Your task to perform on an android device: delete browsing data in the chrome app Image 0: 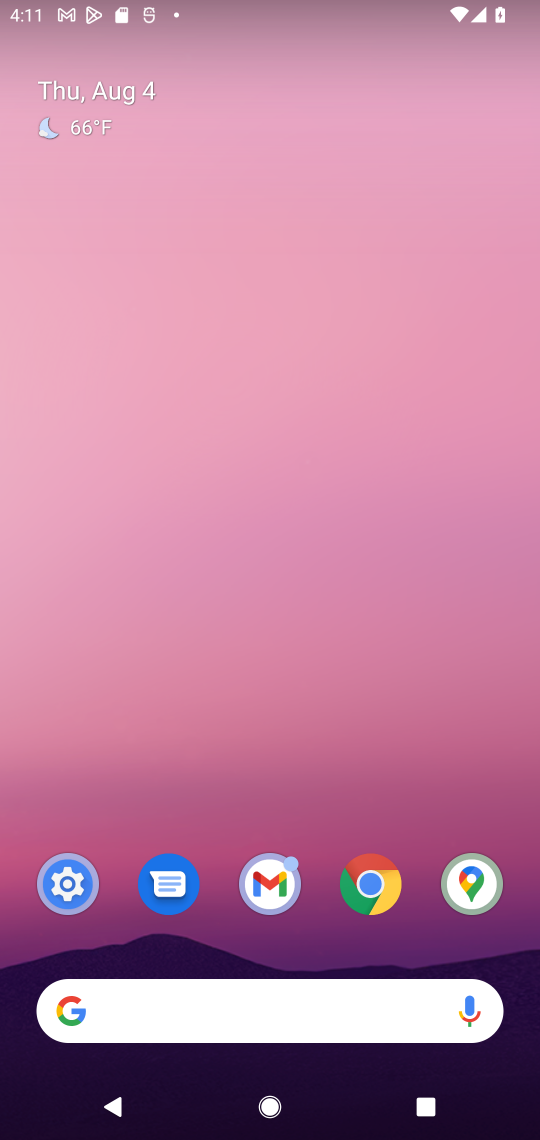
Step 0: click (389, 885)
Your task to perform on an android device: delete browsing data in the chrome app Image 1: 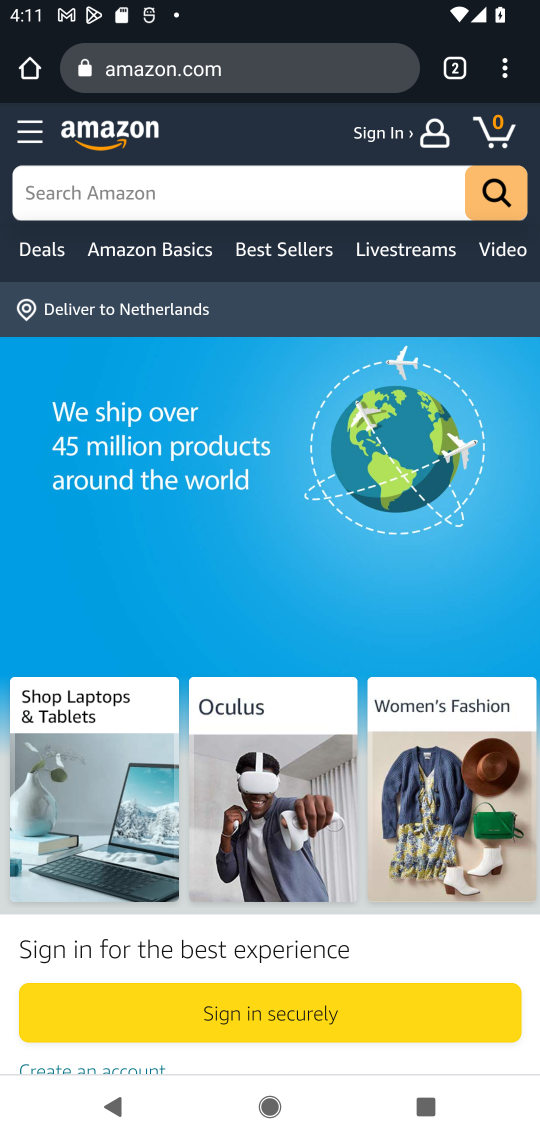
Step 1: click (513, 64)
Your task to perform on an android device: delete browsing data in the chrome app Image 2: 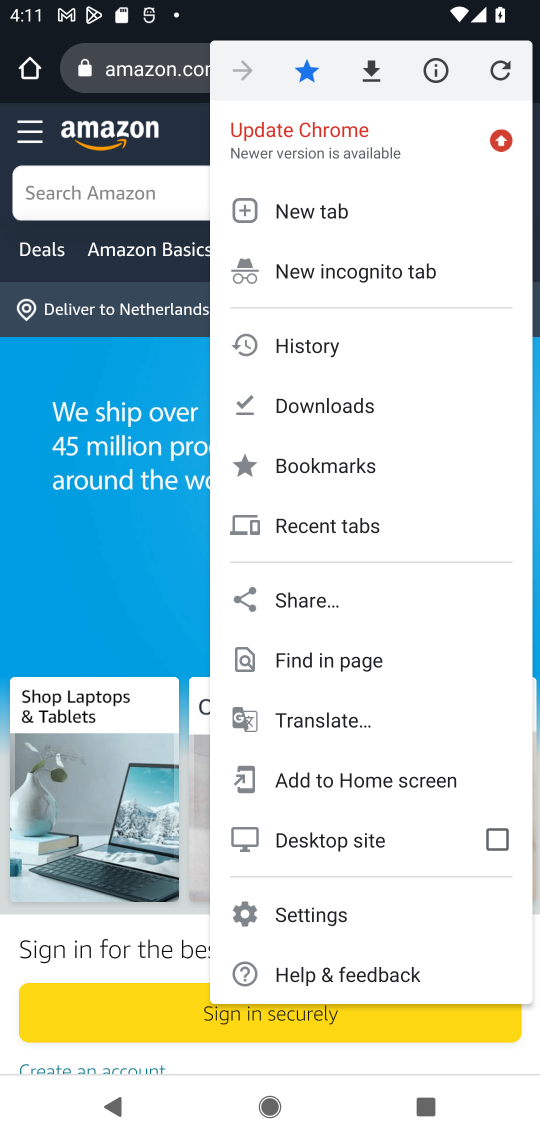
Step 2: click (313, 359)
Your task to perform on an android device: delete browsing data in the chrome app Image 3: 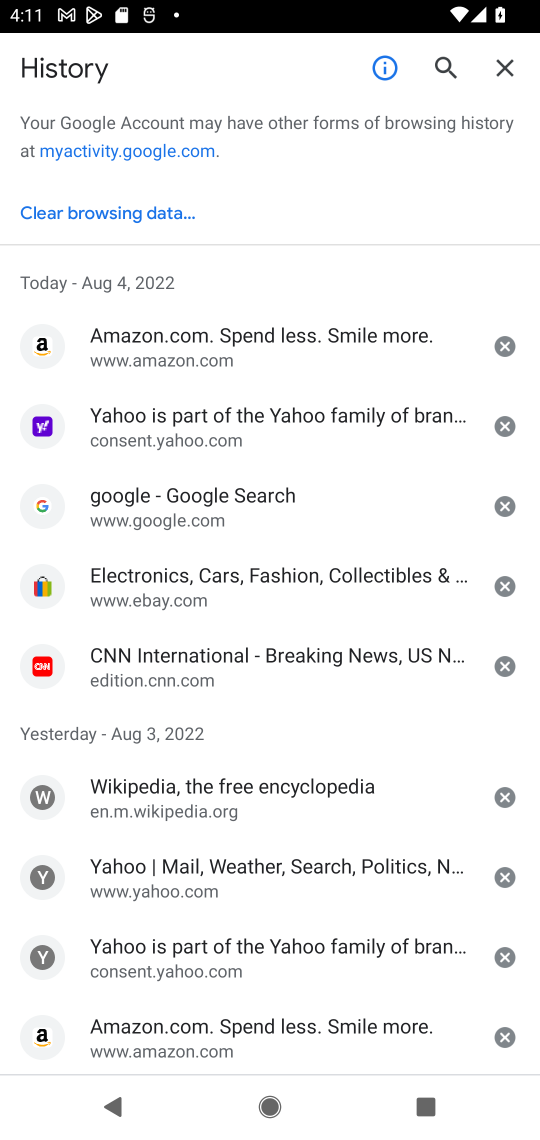
Step 3: click (145, 231)
Your task to perform on an android device: delete browsing data in the chrome app Image 4: 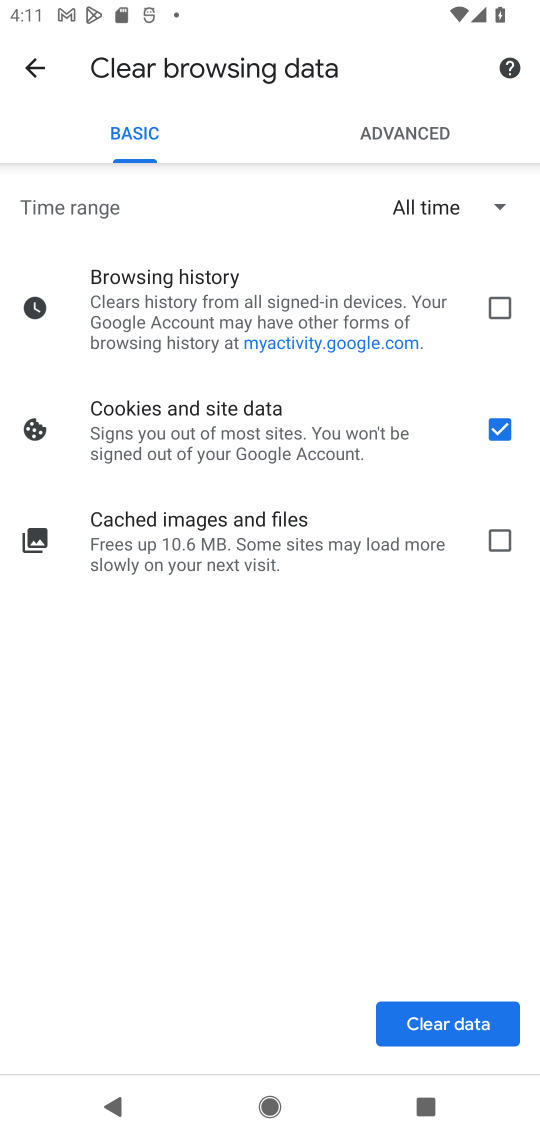
Step 4: click (410, 1002)
Your task to perform on an android device: delete browsing data in the chrome app Image 5: 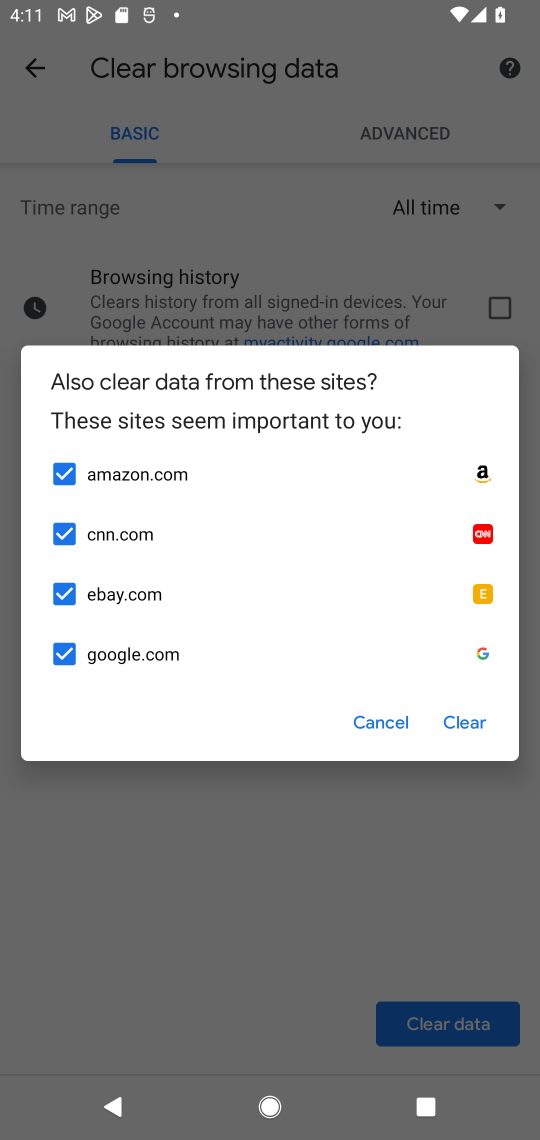
Step 5: click (483, 712)
Your task to perform on an android device: delete browsing data in the chrome app Image 6: 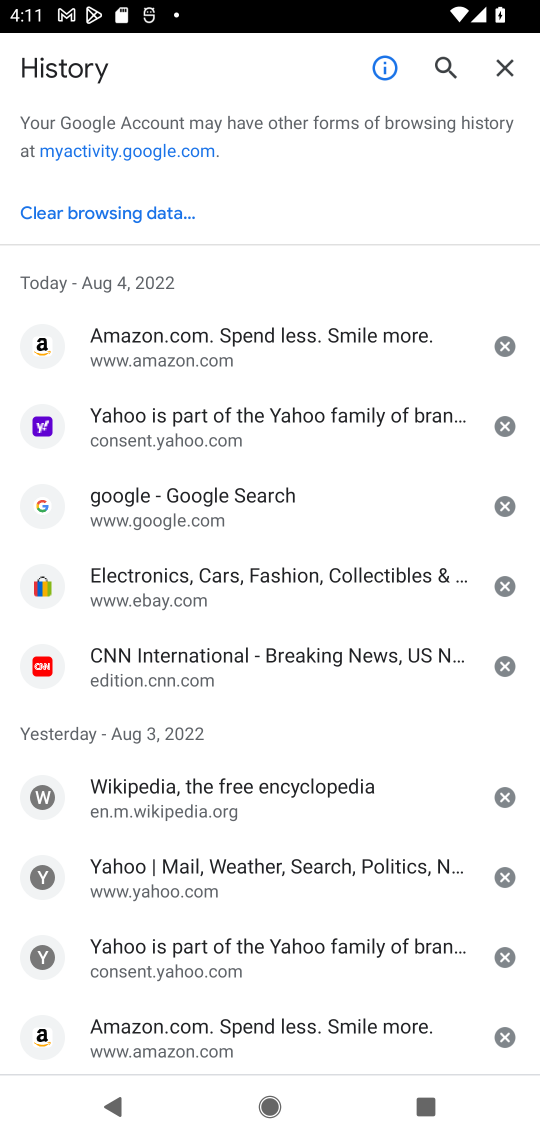
Step 6: task complete